Your task to perform on an android device: install app "Venmo" Image 0: 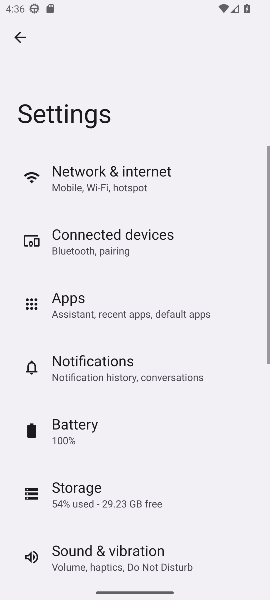
Step 0: press home button
Your task to perform on an android device: install app "Venmo" Image 1: 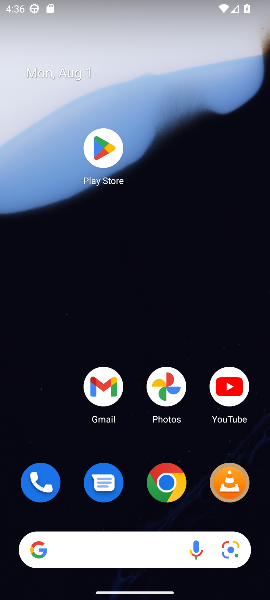
Step 1: click (101, 143)
Your task to perform on an android device: install app "Venmo" Image 2: 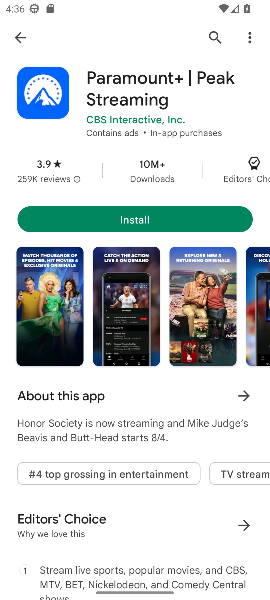
Step 2: click (210, 38)
Your task to perform on an android device: install app "Venmo" Image 3: 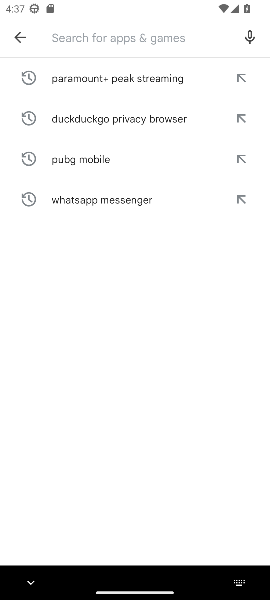
Step 3: type "Venmo"
Your task to perform on an android device: install app "Venmo" Image 4: 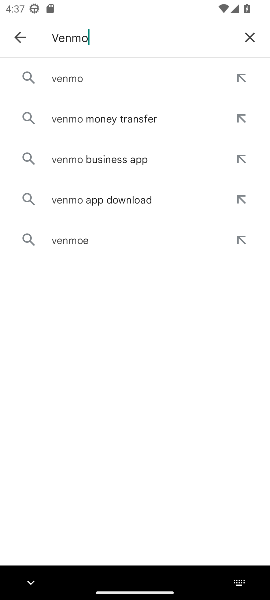
Step 4: click (63, 82)
Your task to perform on an android device: install app "Venmo" Image 5: 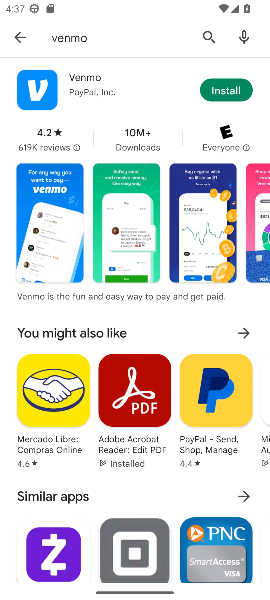
Step 5: click (226, 87)
Your task to perform on an android device: install app "Venmo" Image 6: 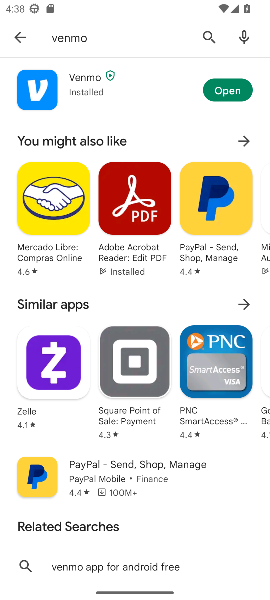
Step 6: task complete